Your task to perform on an android device: change the clock display to analog Image 0: 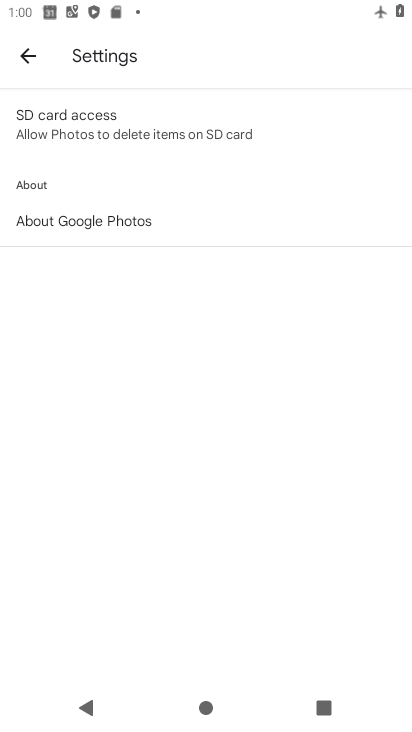
Step 0: press home button
Your task to perform on an android device: change the clock display to analog Image 1: 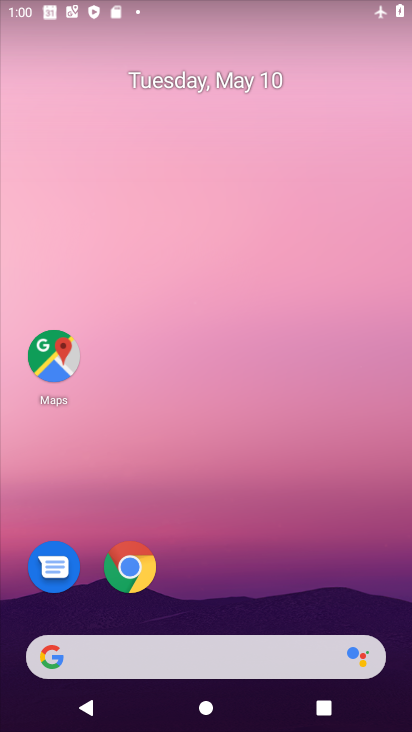
Step 1: drag from (347, 583) to (306, 126)
Your task to perform on an android device: change the clock display to analog Image 2: 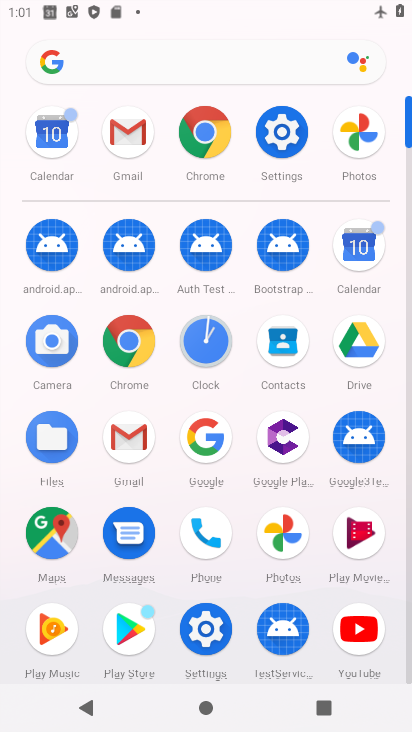
Step 2: click (202, 347)
Your task to perform on an android device: change the clock display to analog Image 3: 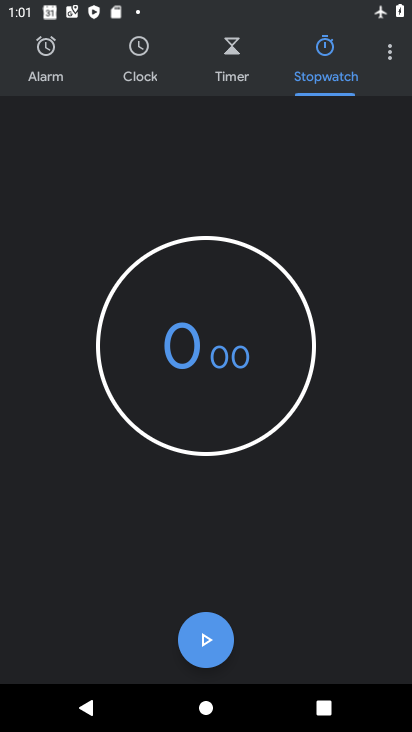
Step 3: click (386, 52)
Your task to perform on an android device: change the clock display to analog Image 4: 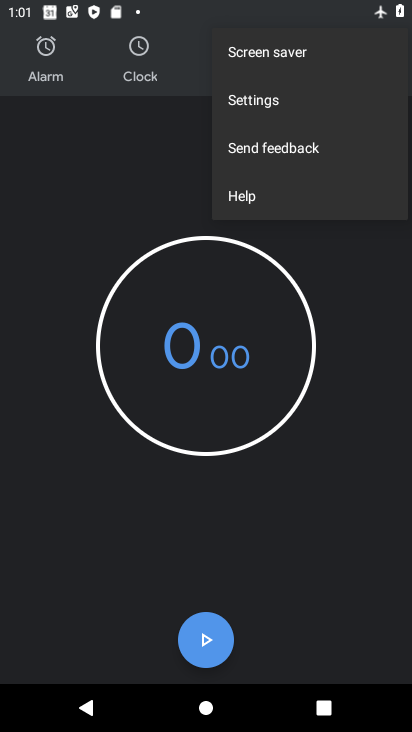
Step 4: click (313, 103)
Your task to perform on an android device: change the clock display to analog Image 5: 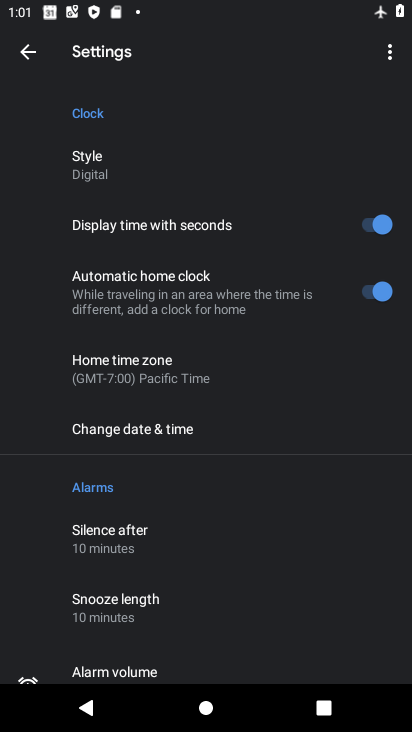
Step 5: click (139, 173)
Your task to perform on an android device: change the clock display to analog Image 6: 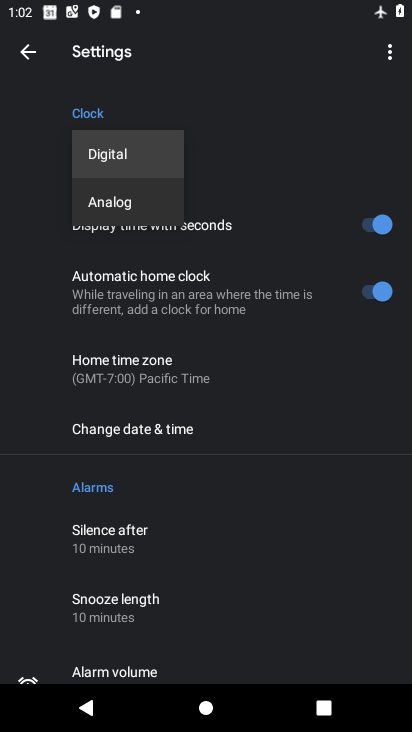
Step 6: click (131, 194)
Your task to perform on an android device: change the clock display to analog Image 7: 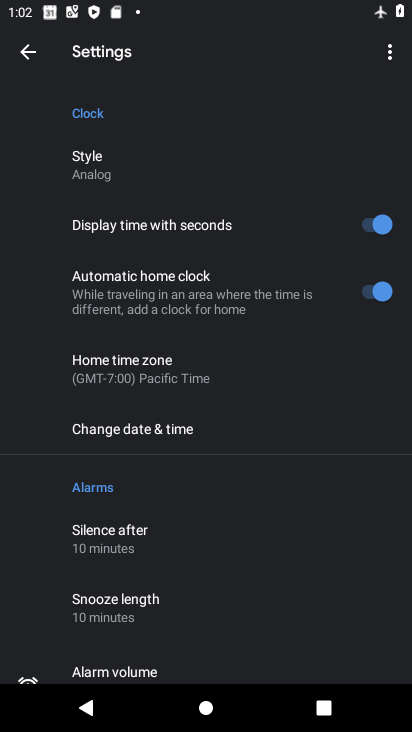
Step 7: task complete